Your task to perform on an android device: Search for pizza restaurants on Maps Image 0: 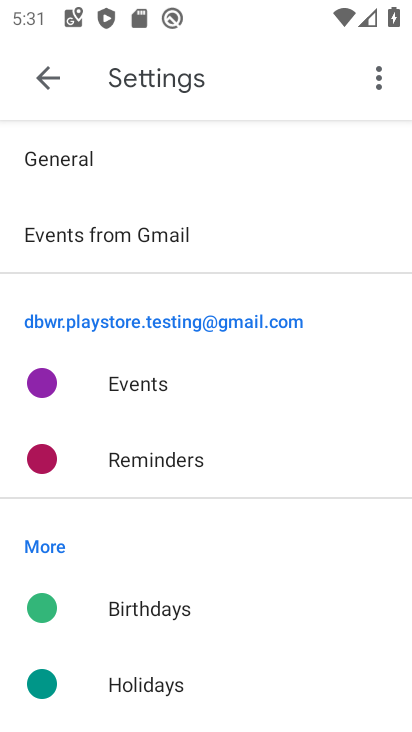
Step 0: press home button
Your task to perform on an android device: Search for pizza restaurants on Maps Image 1: 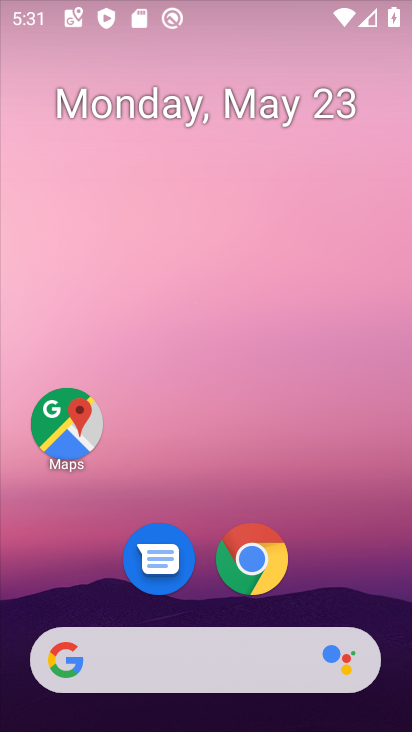
Step 1: drag from (333, 654) to (332, 15)
Your task to perform on an android device: Search for pizza restaurants on Maps Image 2: 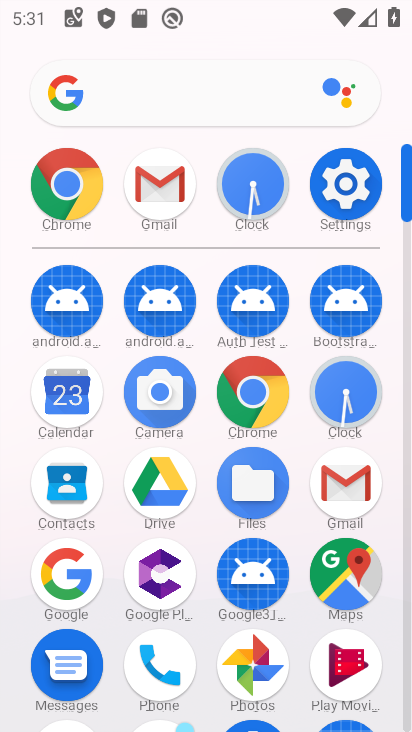
Step 2: click (338, 574)
Your task to perform on an android device: Search for pizza restaurants on Maps Image 3: 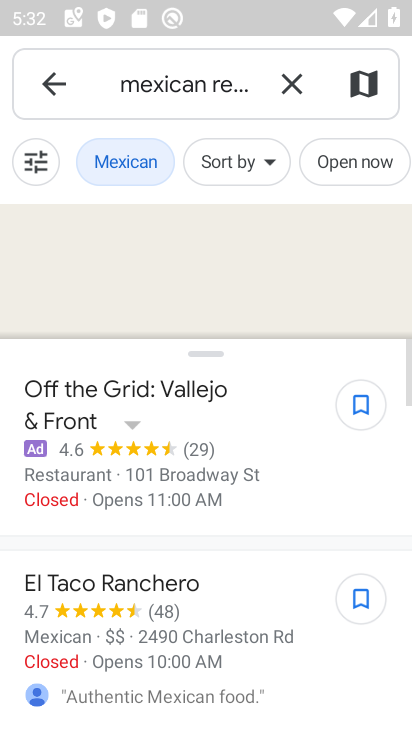
Step 3: click (288, 86)
Your task to perform on an android device: Search for pizza restaurants on Maps Image 4: 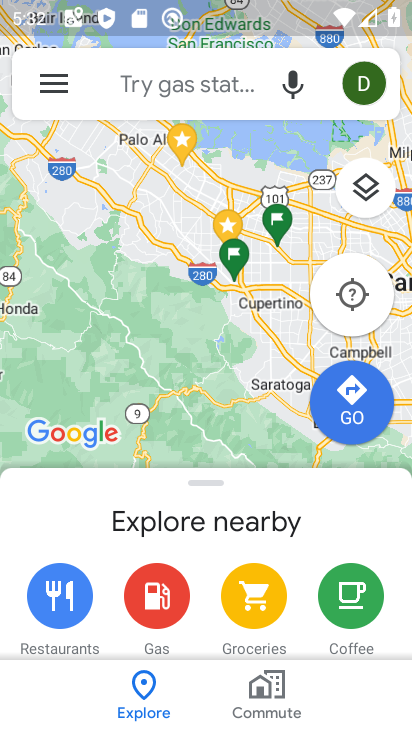
Step 4: type "pizza restaurant"
Your task to perform on an android device: Search for pizza restaurants on Maps Image 5: 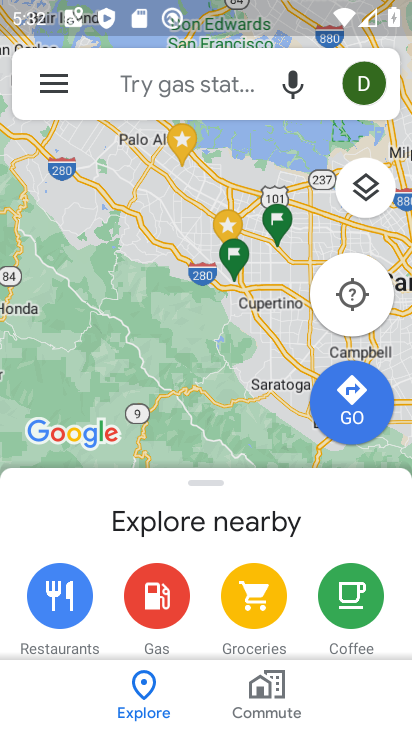
Step 5: click (195, 95)
Your task to perform on an android device: Search for pizza restaurants on Maps Image 6: 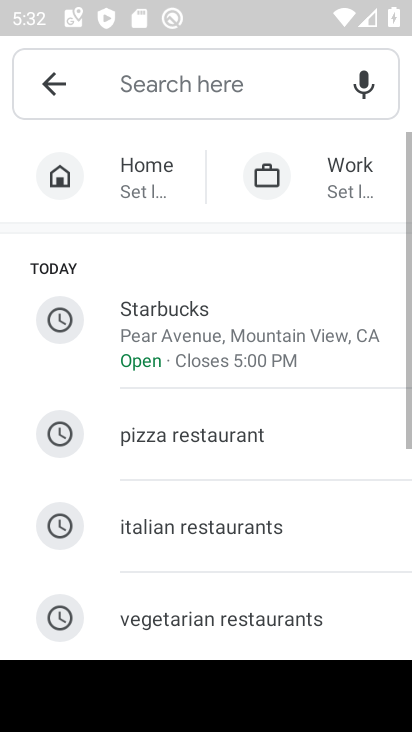
Step 6: click (217, 439)
Your task to perform on an android device: Search for pizza restaurants on Maps Image 7: 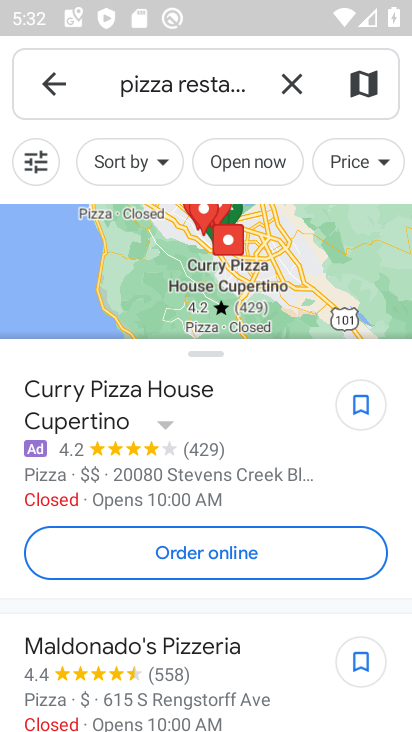
Step 7: task complete